Your task to perform on an android device: Go to accessibility settings Image 0: 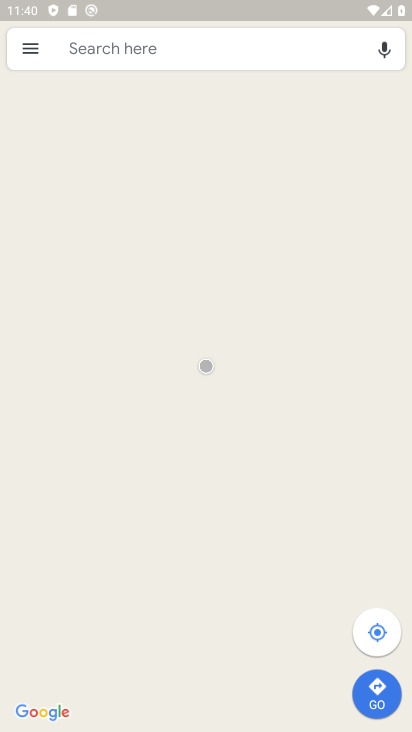
Step 0: press home button
Your task to perform on an android device: Go to accessibility settings Image 1: 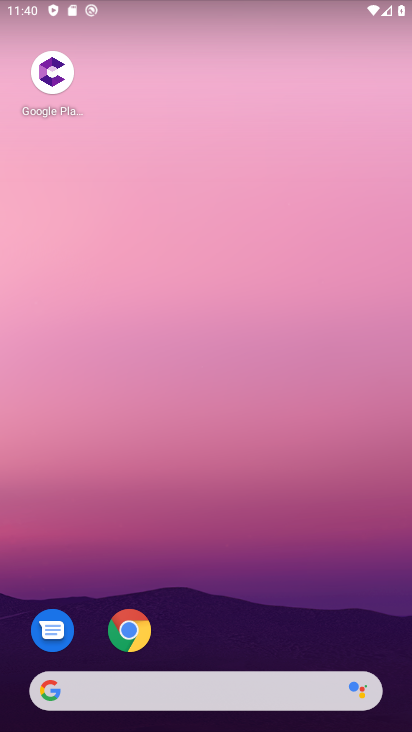
Step 1: drag from (247, 633) to (247, 179)
Your task to perform on an android device: Go to accessibility settings Image 2: 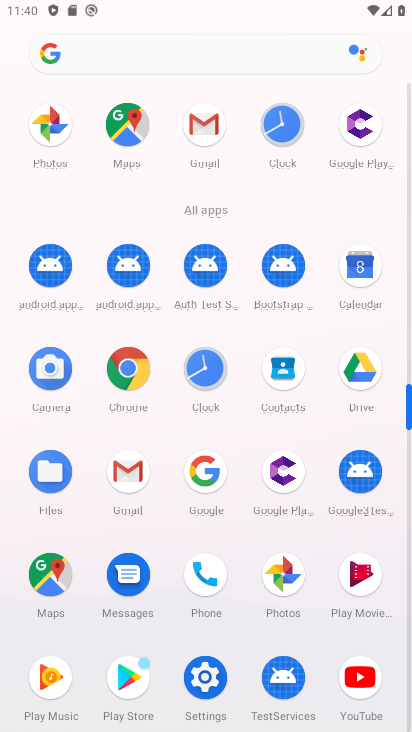
Step 2: drag from (231, 497) to (288, 166)
Your task to perform on an android device: Go to accessibility settings Image 3: 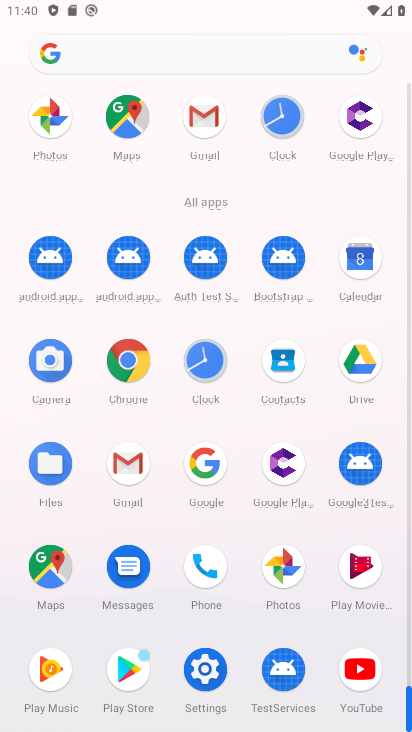
Step 3: click (206, 669)
Your task to perform on an android device: Go to accessibility settings Image 4: 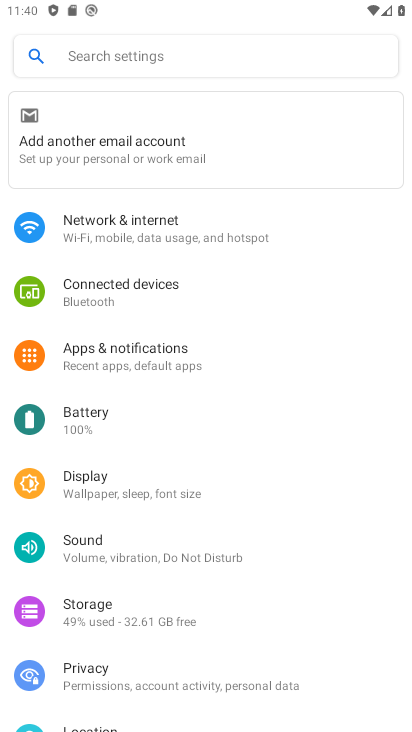
Step 4: drag from (169, 623) to (225, 201)
Your task to perform on an android device: Go to accessibility settings Image 5: 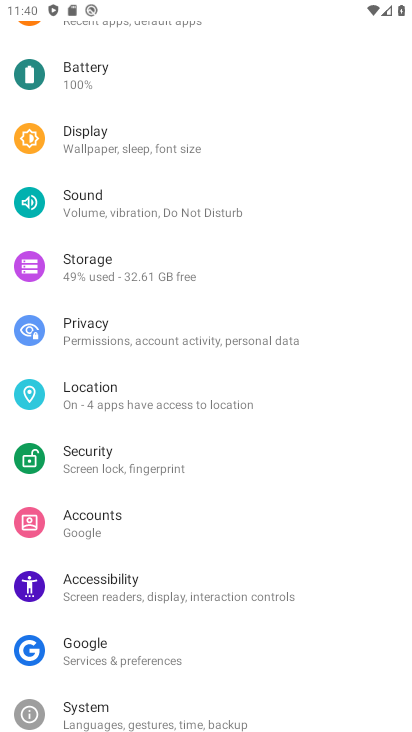
Step 5: click (142, 596)
Your task to perform on an android device: Go to accessibility settings Image 6: 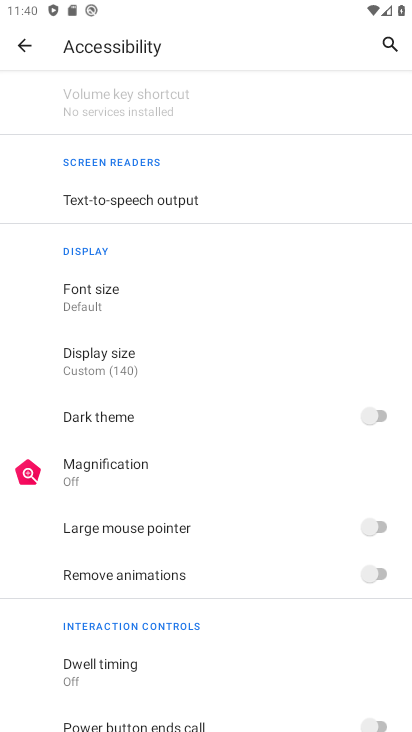
Step 6: task complete